Your task to perform on an android device: Open the web browser Image 0: 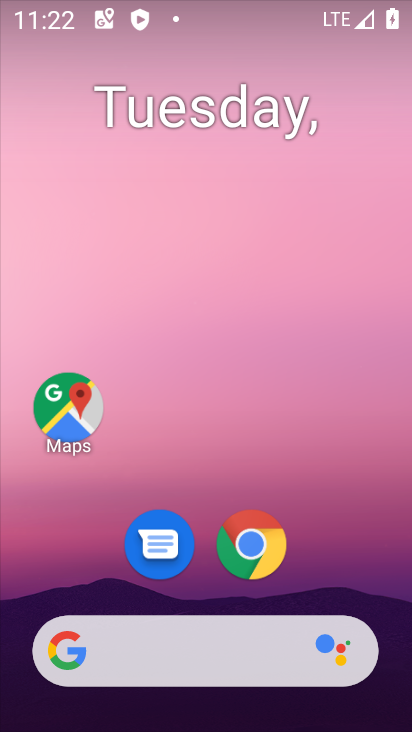
Step 0: drag from (396, 627) to (219, 75)
Your task to perform on an android device: Open the web browser Image 1: 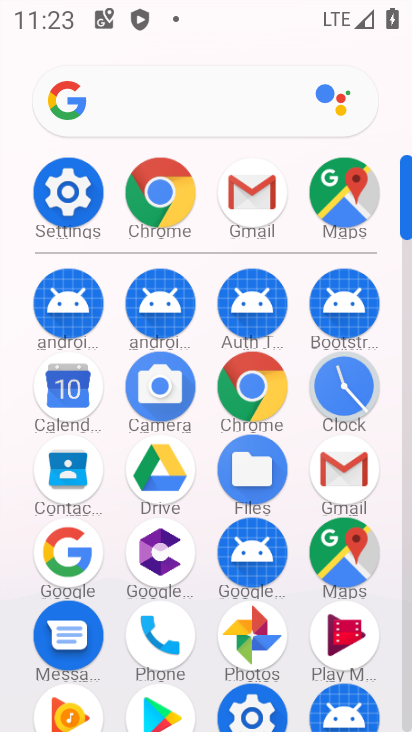
Step 1: click (174, 184)
Your task to perform on an android device: Open the web browser Image 2: 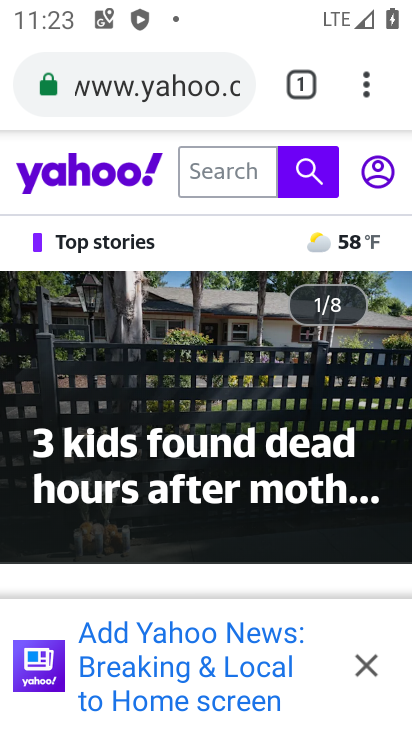
Step 2: task complete